Your task to perform on an android device: Go to Amazon Image 0: 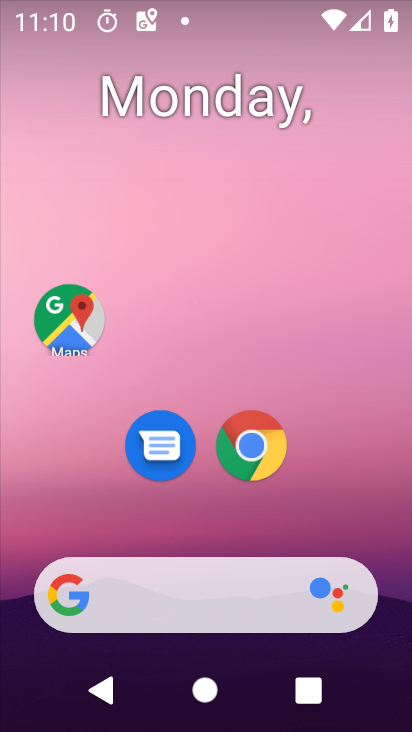
Step 0: click (244, 451)
Your task to perform on an android device: Go to Amazon Image 1: 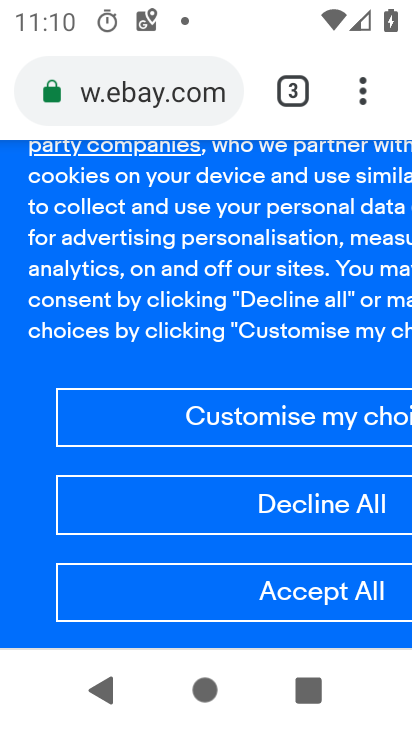
Step 1: click (289, 94)
Your task to perform on an android device: Go to Amazon Image 2: 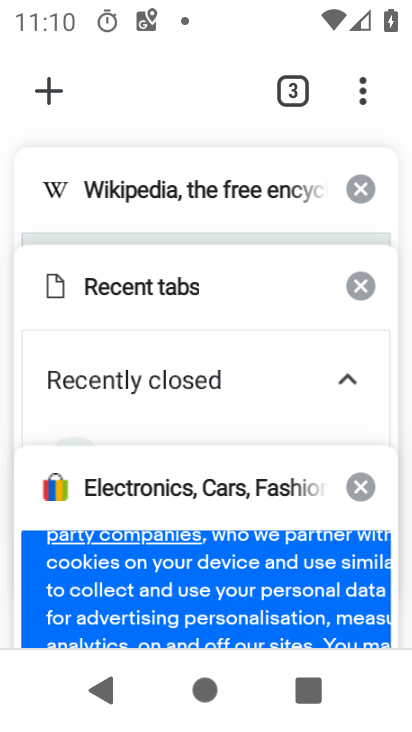
Step 2: click (44, 86)
Your task to perform on an android device: Go to Amazon Image 3: 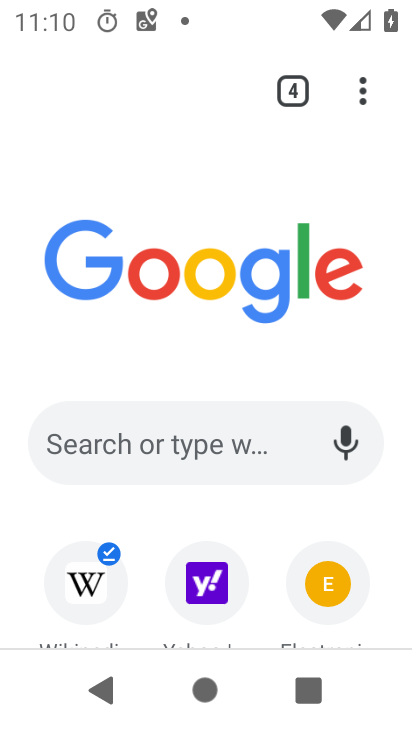
Step 3: drag from (191, 642) to (245, 246)
Your task to perform on an android device: Go to Amazon Image 4: 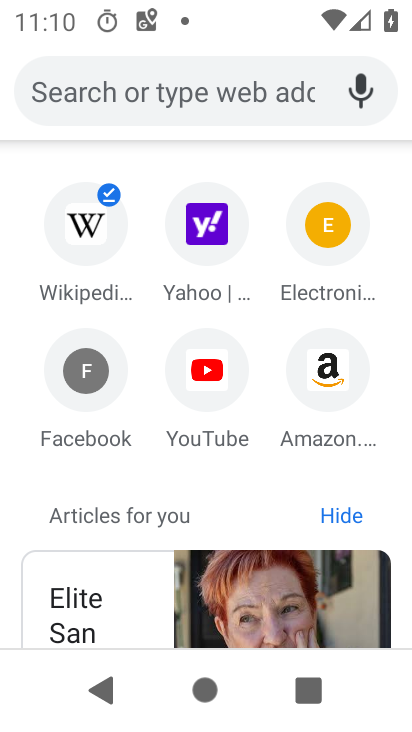
Step 4: click (332, 394)
Your task to perform on an android device: Go to Amazon Image 5: 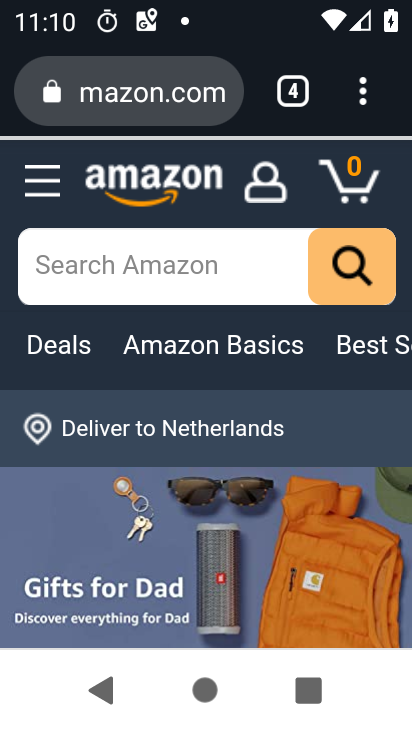
Step 5: task complete